Your task to perform on an android device: Look up the best rated 5.1 home theater speakers on Walmart. Image 0: 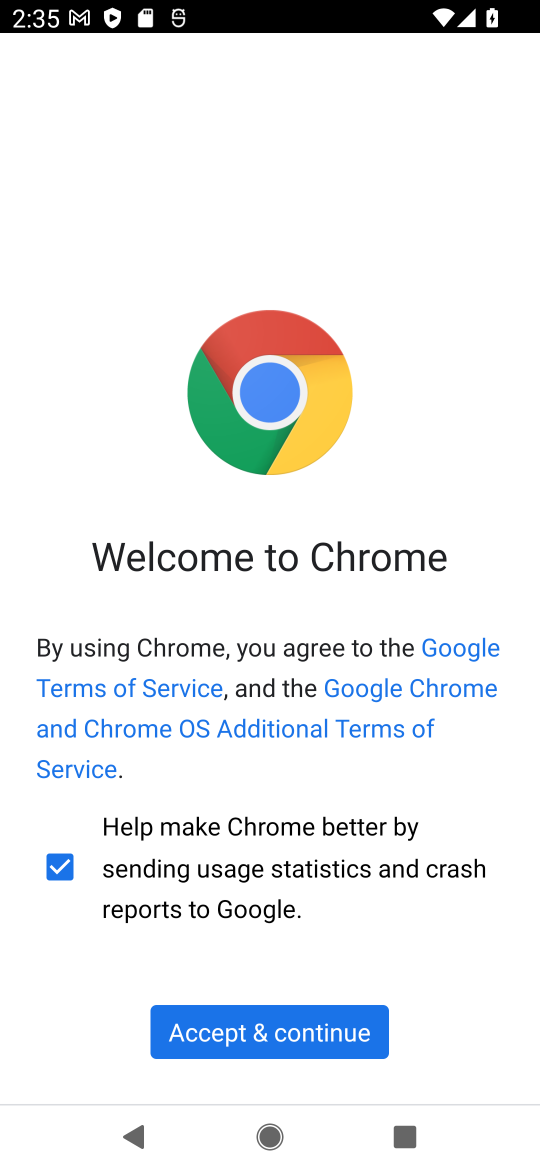
Step 0: press home button
Your task to perform on an android device: Look up the best rated 5.1 home theater speakers on Walmart. Image 1: 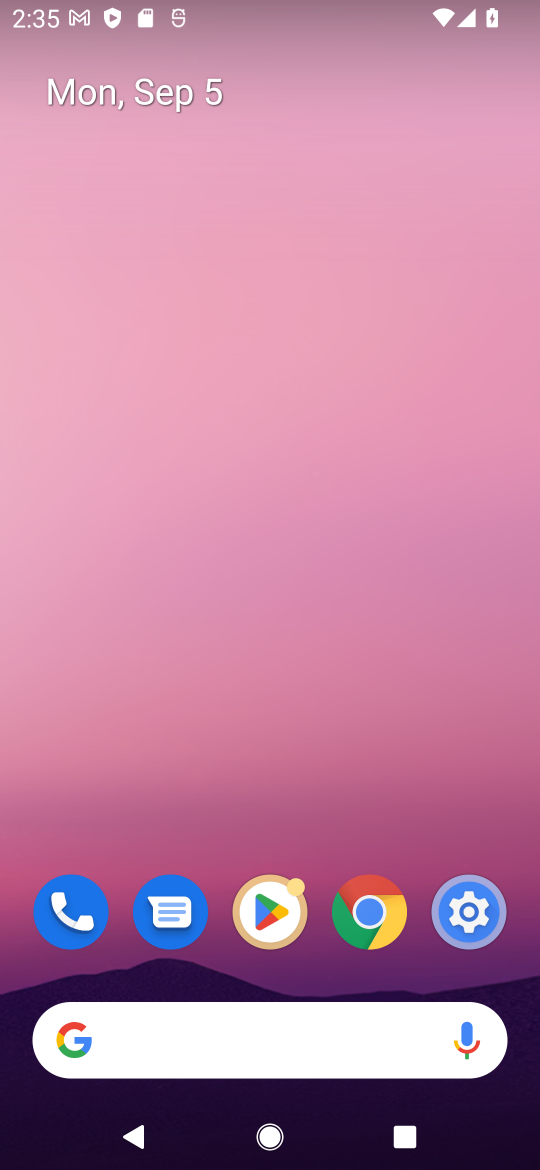
Step 1: click (367, 918)
Your task to perform on an android device: Look up the best rated 5.1 home theater speakers on Walmart. Image 2: 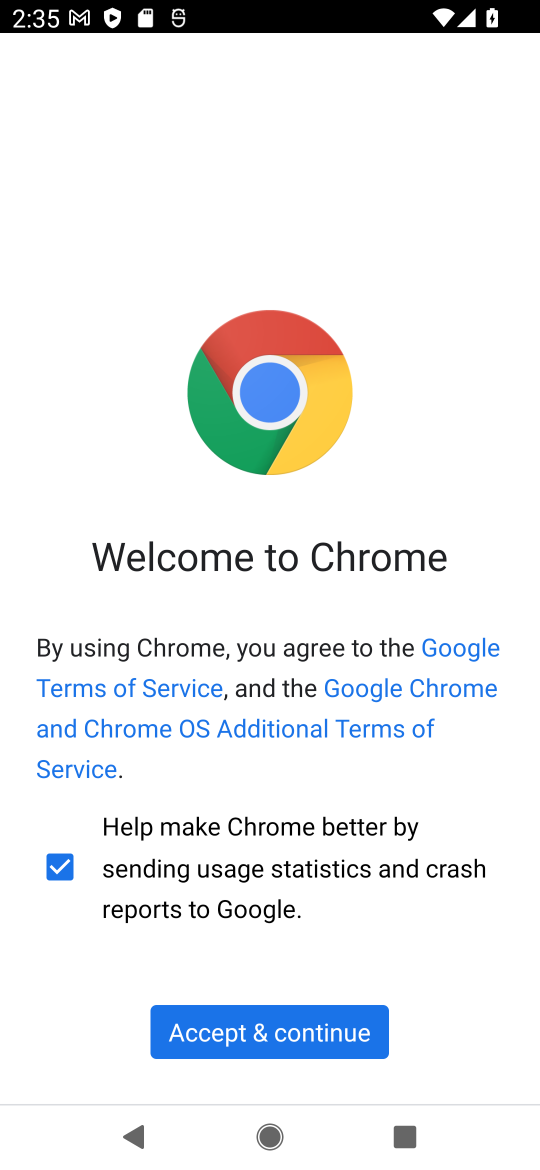
Step 2: click (380, 931)
Your task to perform on an android device: Look up the best rated 5.1 home theater speakers on Walmart. Image 3: 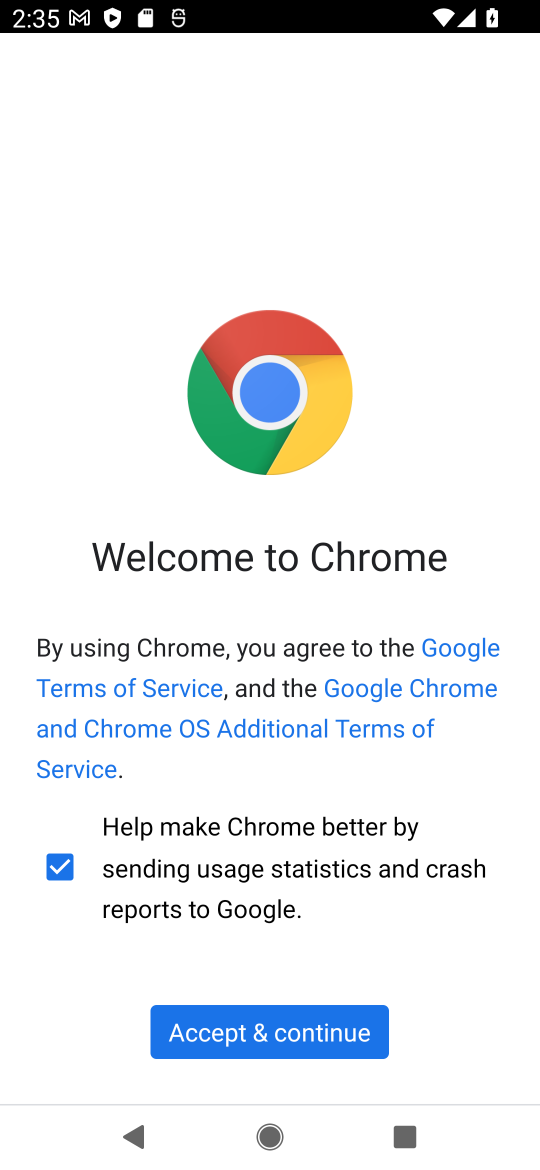
Step 3: click (314, 1027)
Your task to perform on an android device: Look up the best rated 5.1 home theater speakers on Walmart. Image 4: 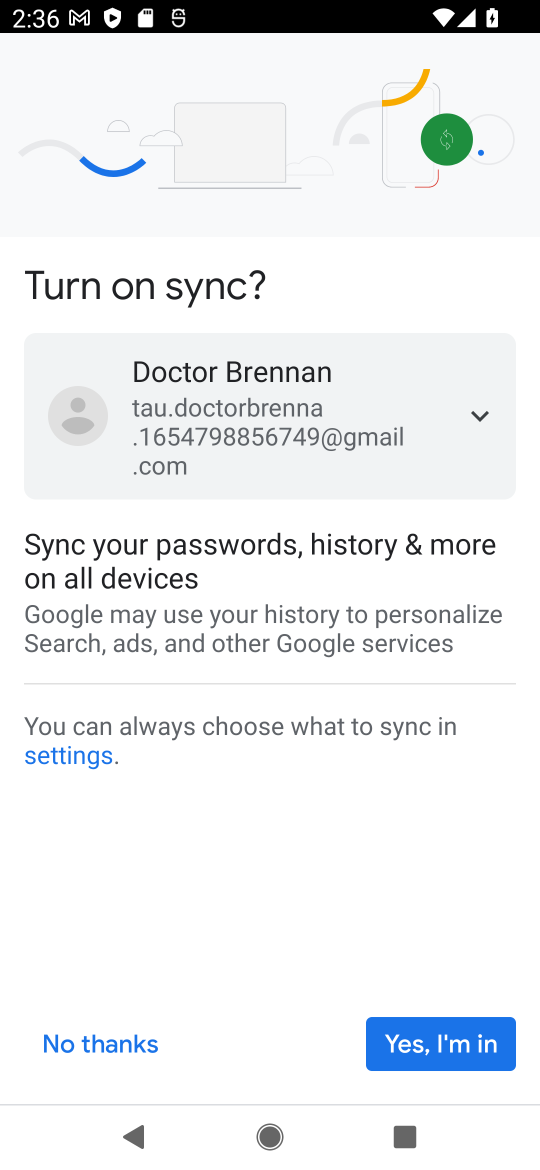
Step 4: click (482, 1052)
Your task to perform on an android device: Look up the best rated 5.1 home theater speakers on Walmart. Image 5: 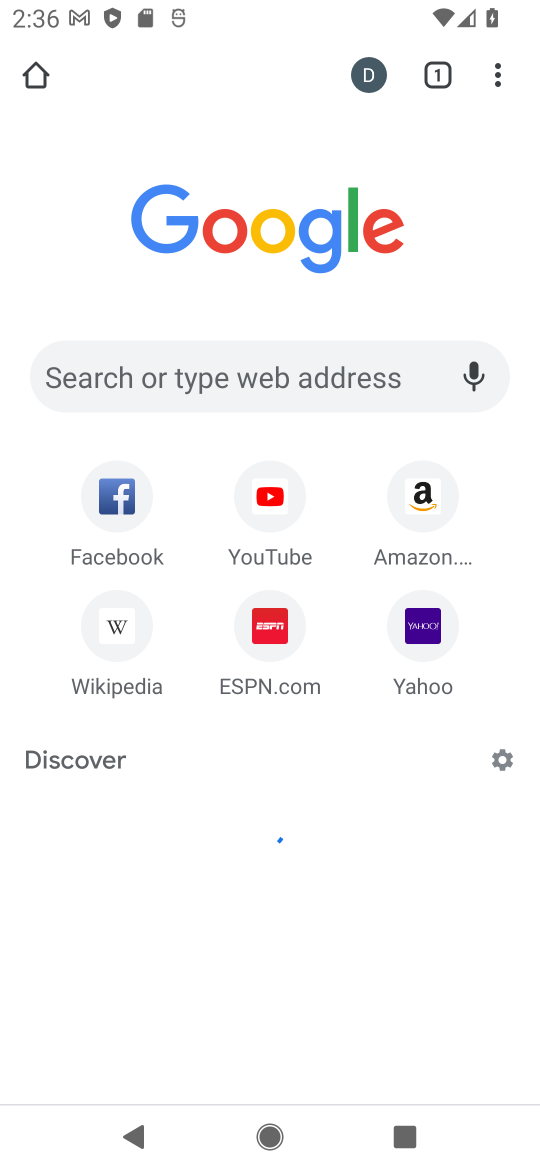
Step 5: click (229, 378)
Your task to perform on an android device: Look up the best rated 5.1 home theater speakers on Walmart. Image 6: 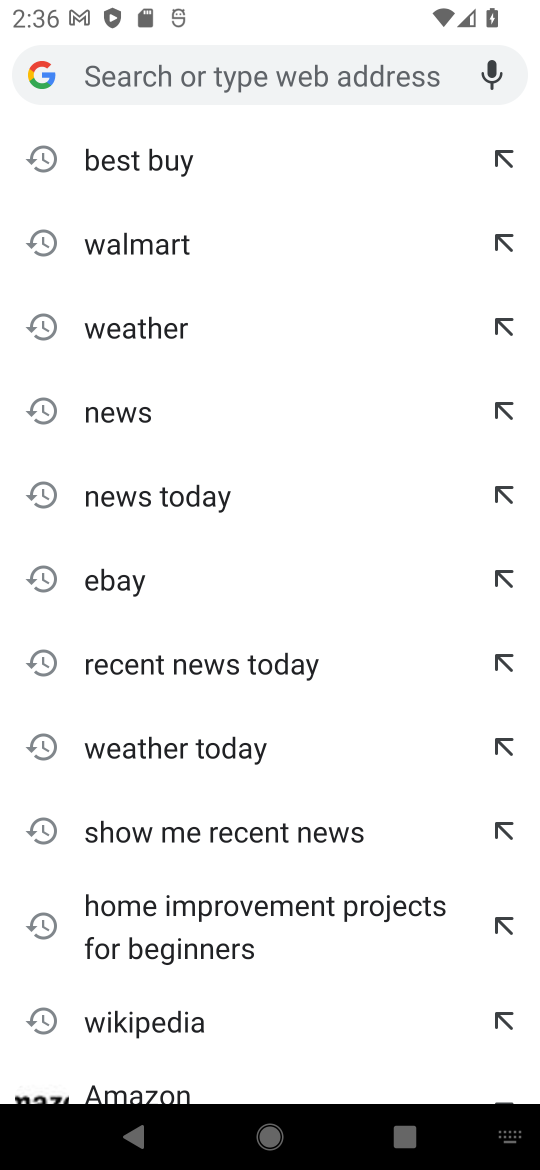
Step 6: type "walmart"
Your task to perform on an android device: Look up the best rated 5.1 home theater speakers on Walmart. Image 7: 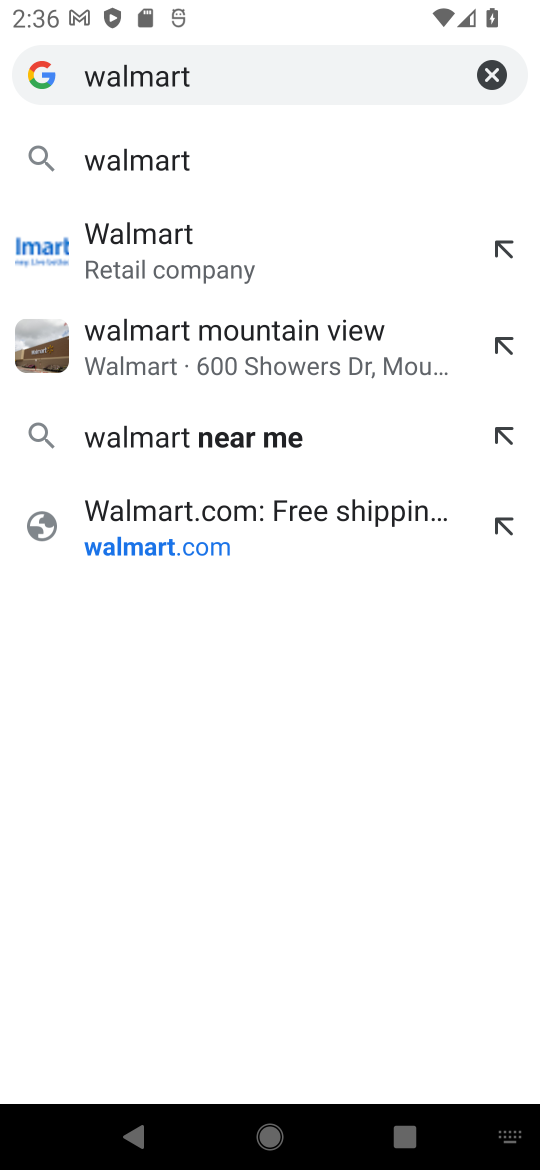
Step 7: press enter
Your task to perform on an android device: Look up the best rated 5.1 home theater speakers on Walmart. Image 8: 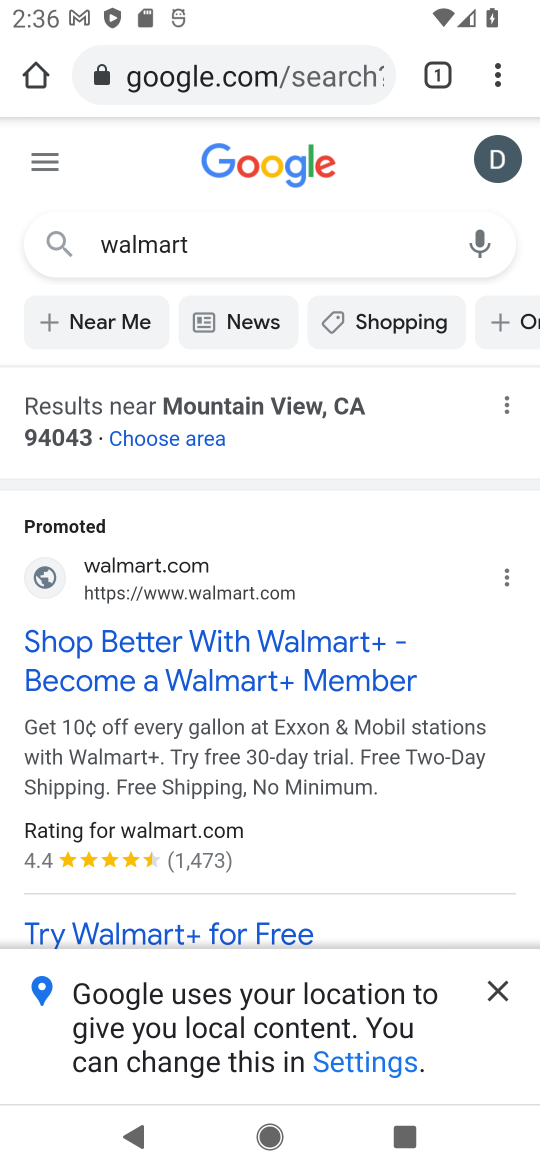
Step 8: click (204, 665)
Your task to perform on an android device: Look up the best rated 5.1 home theater speakers on Walmart. Image 9: 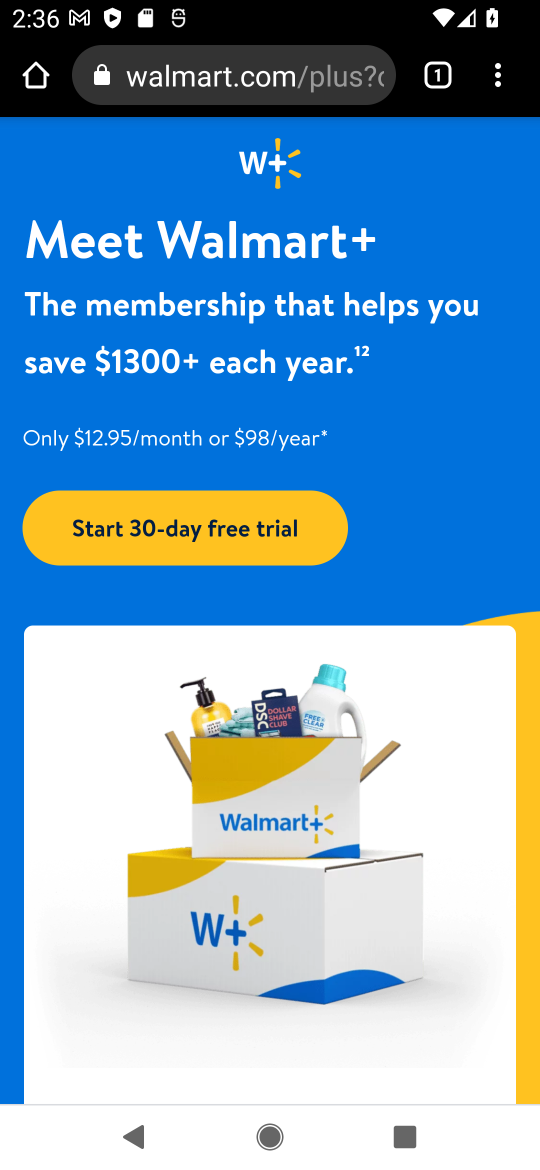
Step 9: drag from (287, 752) to (287, 354)
Your task to perform on an android device: Look up the best rated 5.1 home theater speakers on Walmart. Image 10: 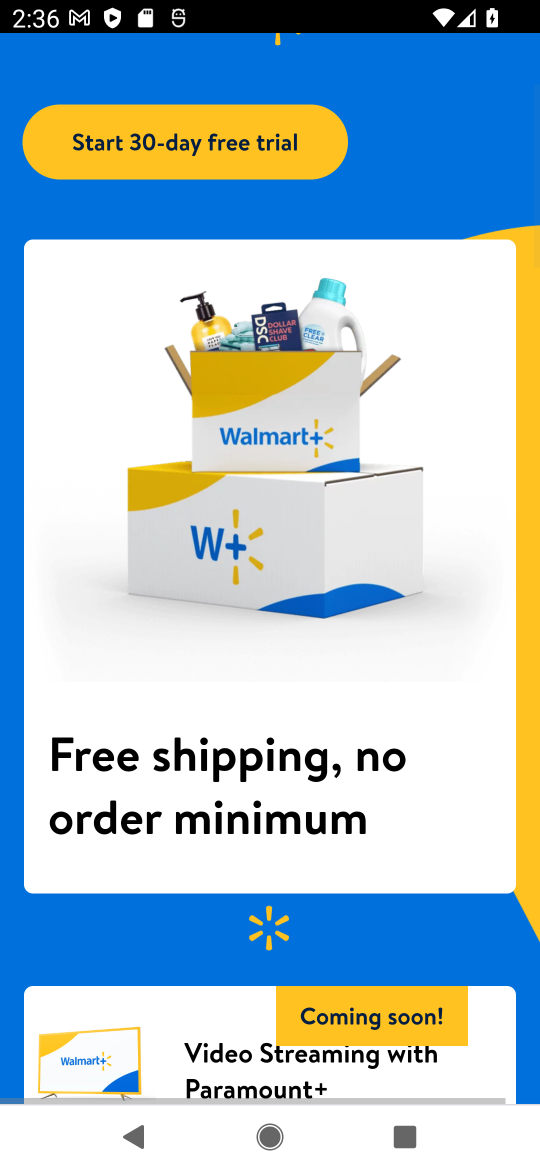
Step 10: click (338, 905)
Your task to perform on an android device: Look up the best rated 5.1 home theater speakers on Walmart. Image 11: 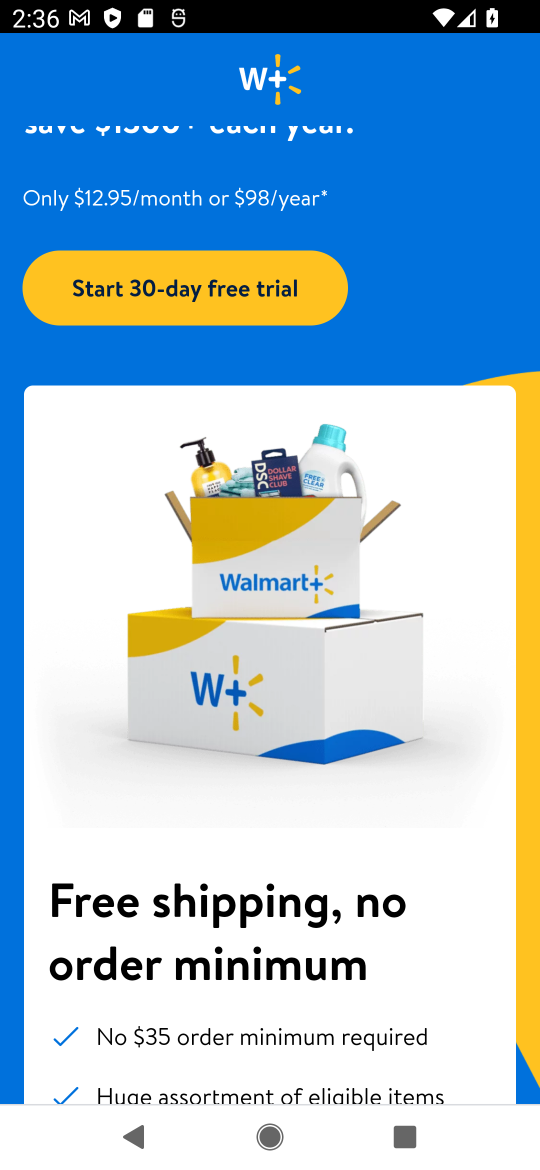
Step 11: click (268, 88)
Your task to perform on an android device: Look up the best rated 5.1 home theater speakers on Walmart. Image 12: 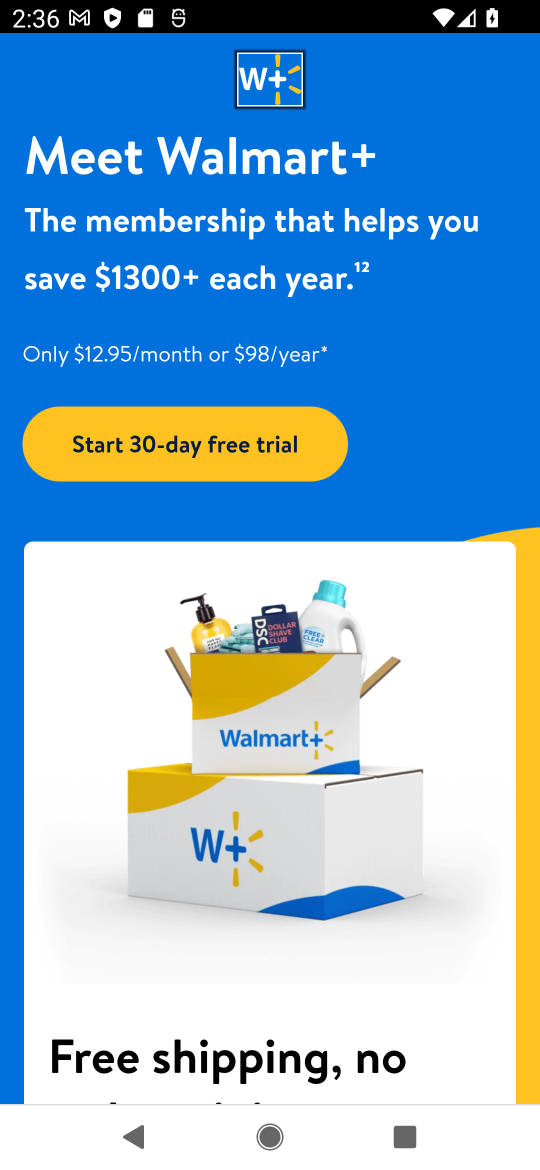
Step 12: click (270, 81)
Your task to perform on an android device: Look up the best rated 5.1 home theater speakers on Walmart. Image 13: 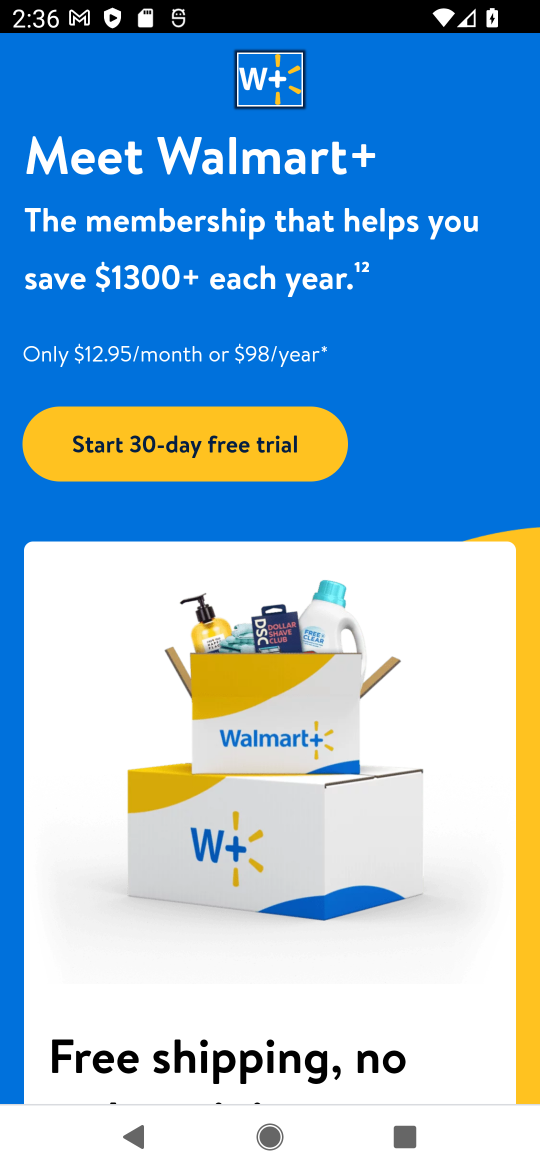
Step 13: press back button
Your task to perform on an android device: Look up the best rated 5.1 home theater speakers on Walmart. Image 14: 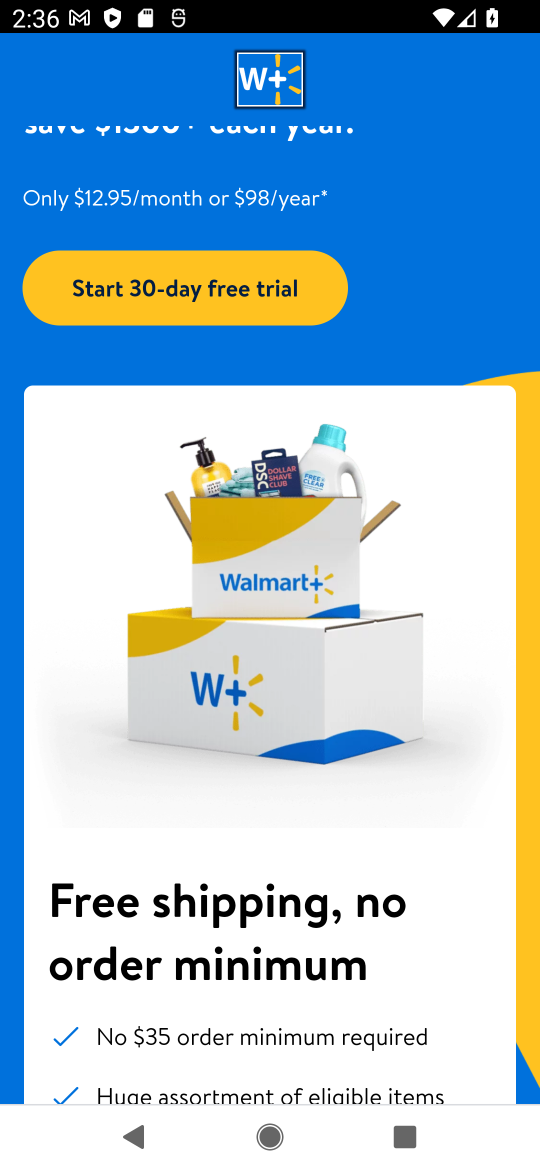
Step 14: press back button
Your task to perform on an android device: Look up the best rated 5.1 home theater speakers on Walmart. Image 15: 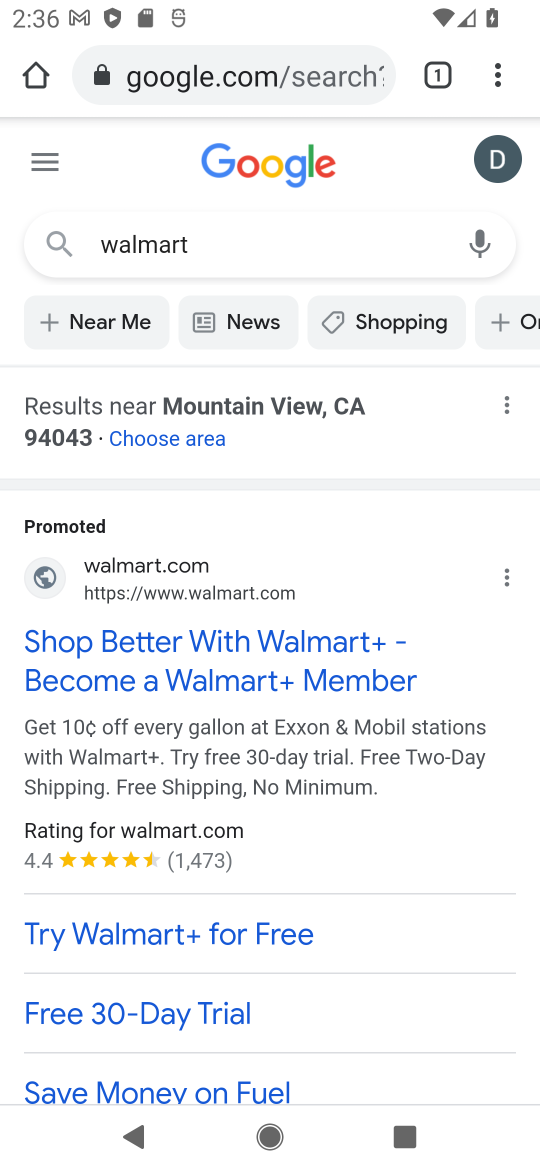
Step 15: drag from (295, 856) to (419, 440)
Your task to perform on an android device: Look up the best rated 5.1 home theater speakers on Walmart. Image 16: 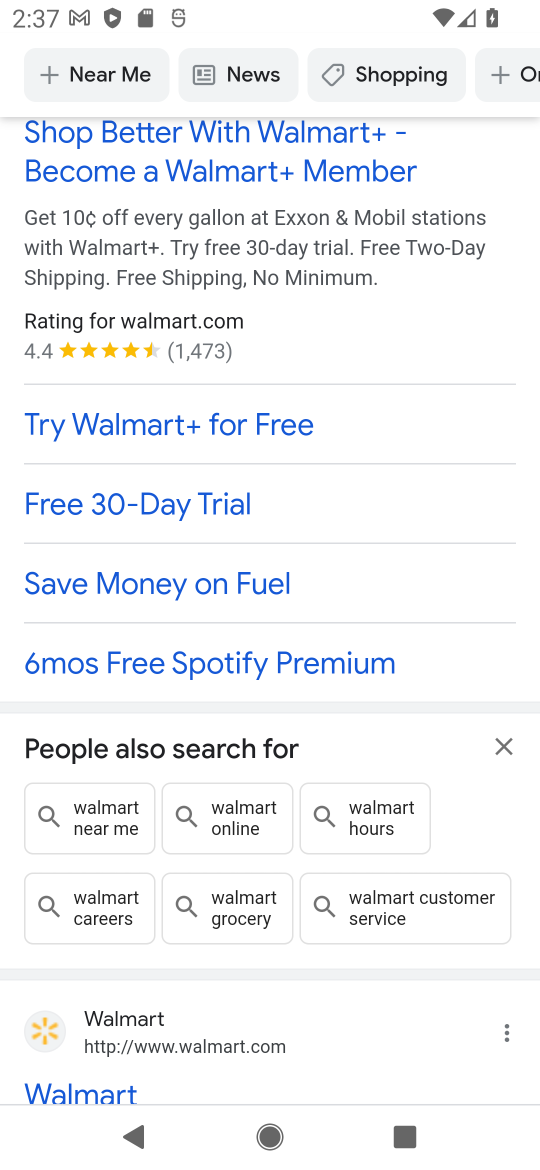
Step 16: drag from (363, 890) to (381, 594)
Your task to perform on an android device: Look up the best rated 5.1 home theater speakers on Walmart. Image 17: 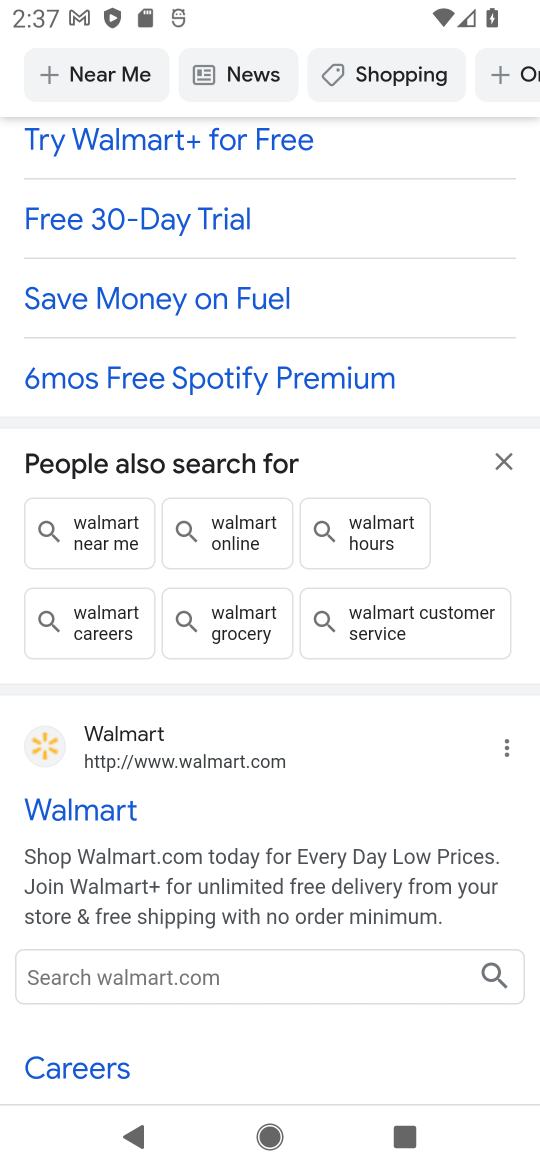
Step 17: click (96, 817)
Your task to perform on an android device: Look up the best rated 5.1 home theater speakers on Walmart. Image 18: 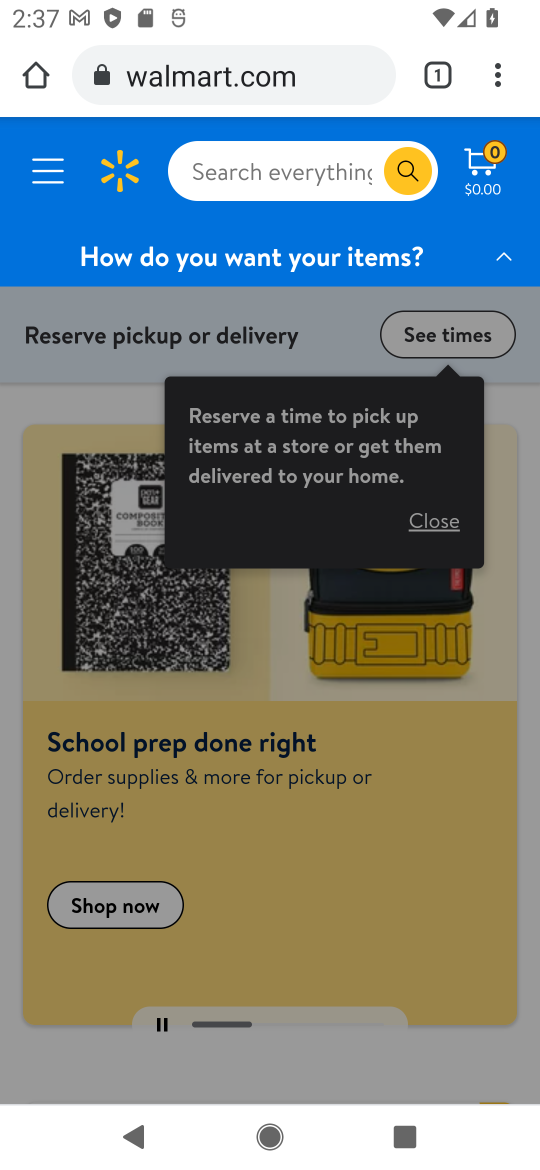
Step 18: click (274, 167)
Your task to perform on an android device: Look up the best rated 5.1 home theater speakers on Walmart. Image 19: 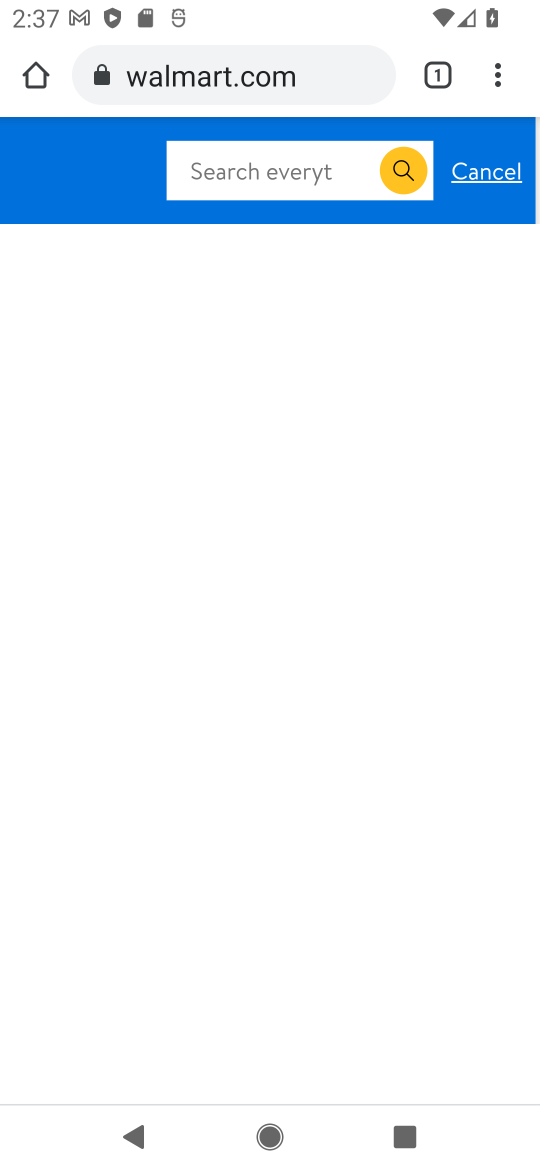
Step 19: click (237, 165)
Your task to perform on an android device: Look up the best rated 5.1 home theater speakers on Walmart. Image 20: 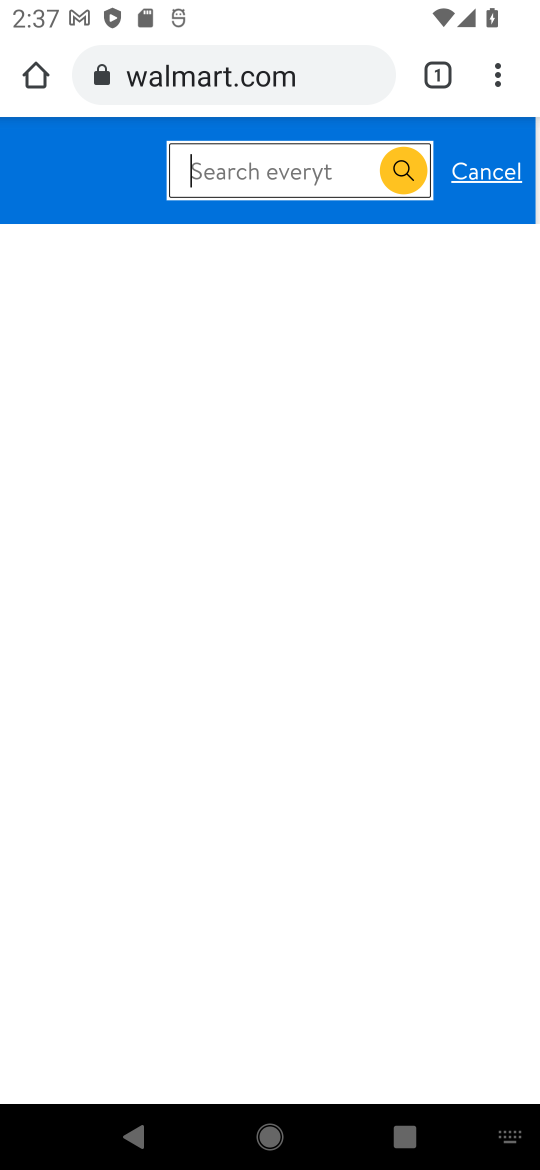
Step 20: type "5.1 home theater speakers"
Your task to perform on an android device: Look up the best rated 5.1 home theater speakers on Walmart. Image 21: 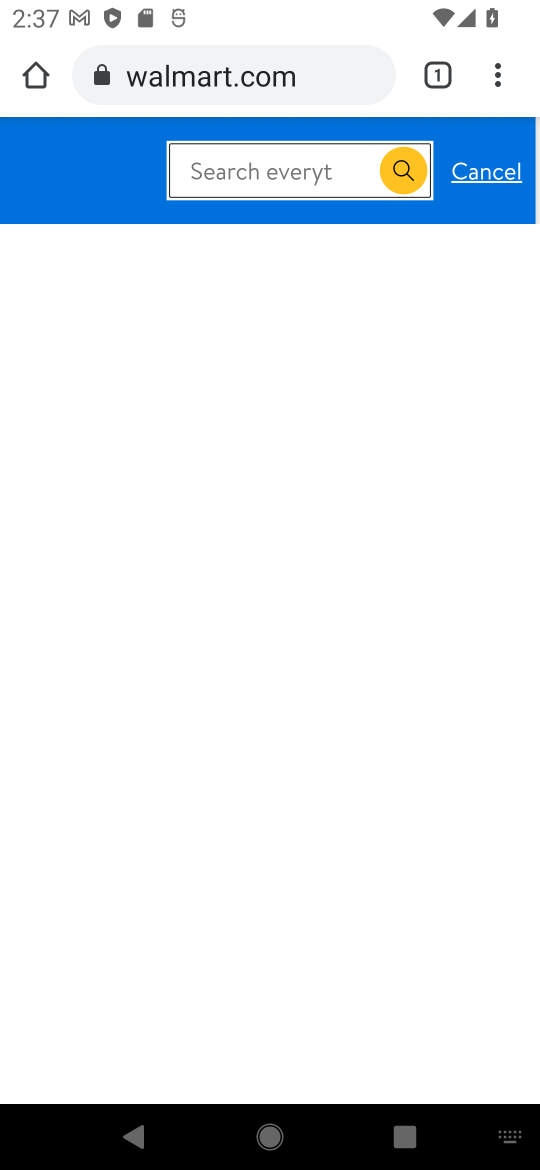
Step 21: type ""
Your task to perform on an android device: Look up the best rated 5.1 home theater speakers on Walmart. Image 22: 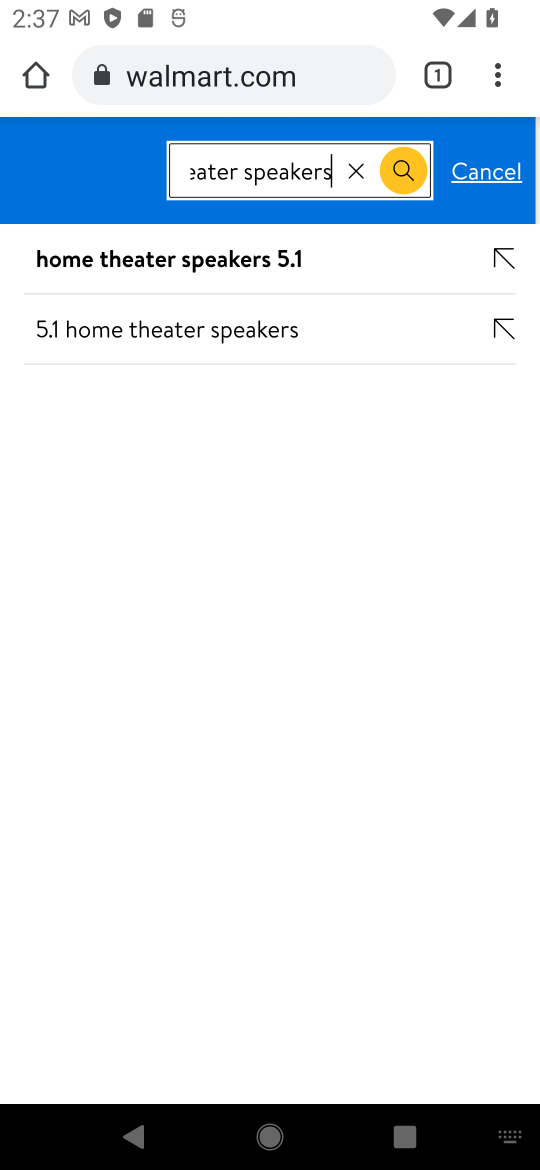
Step 22: click (325, 312)
Your task to perform on an android device: Look up the best rated 5.1 home theater speakers on Walmart. Image 23: 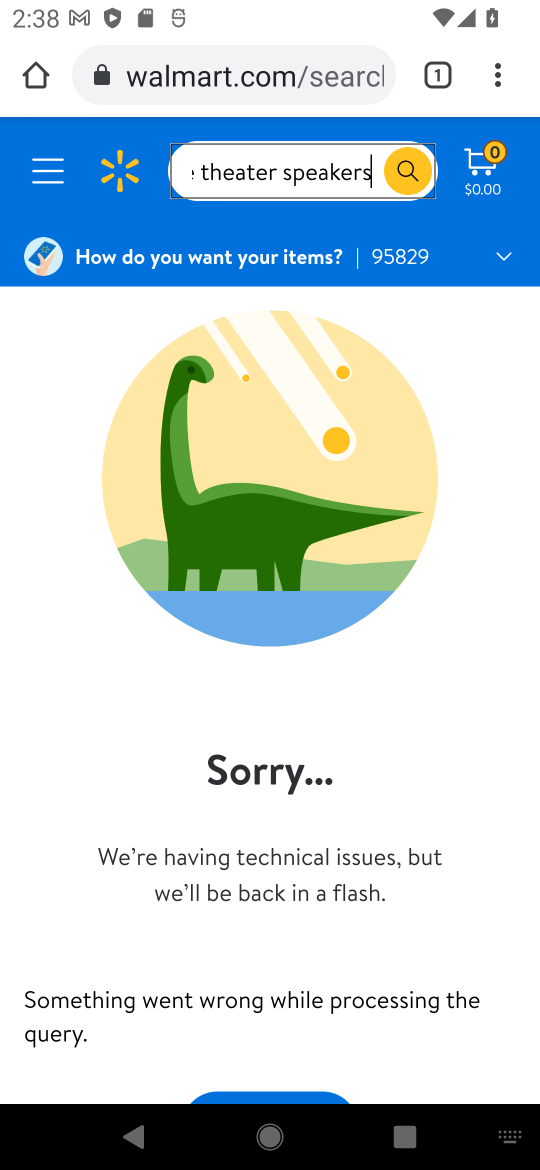
Step 23: click (419, 182)
Your task to perform on an android device: Look up the best rated 5.1 home theater speakers on Walmart. Image 24: 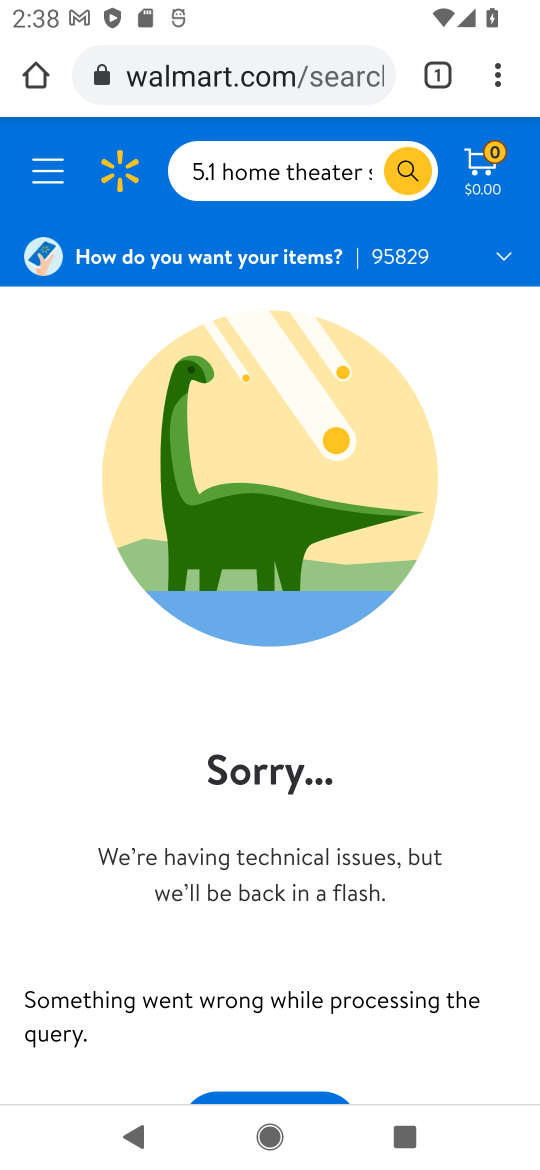
Step 24: click (331, 175)
Your task to perform on an android device: Look up the best rated 5.1 home theater speakers on Walmart. Image 25: 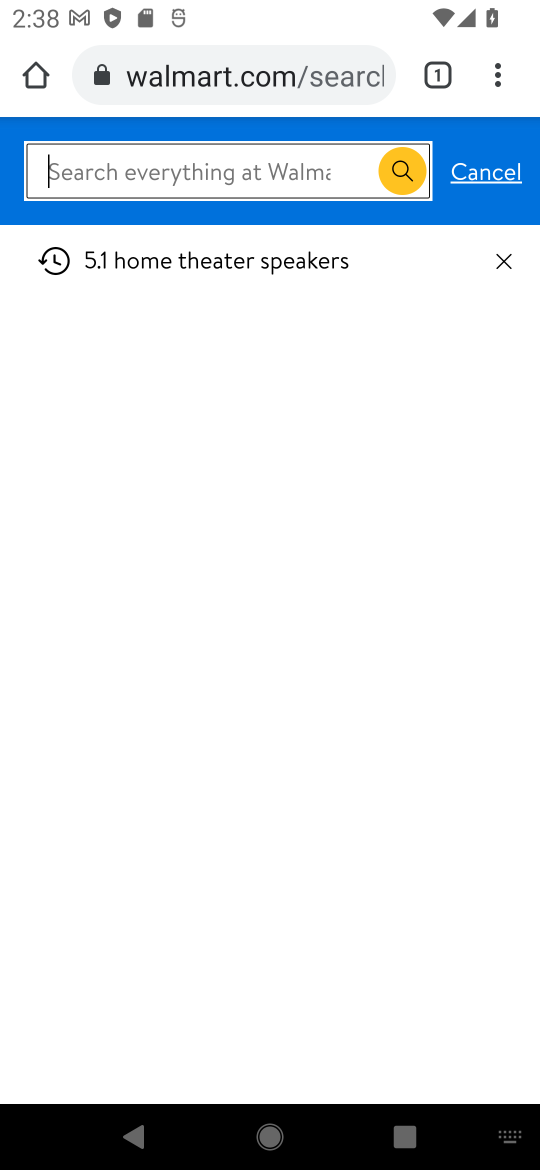
Step 25: click (293, 264)
Your task to perform on an android device: Look up the best rated 5.1 home theater speakers on Walmart. Image 26: 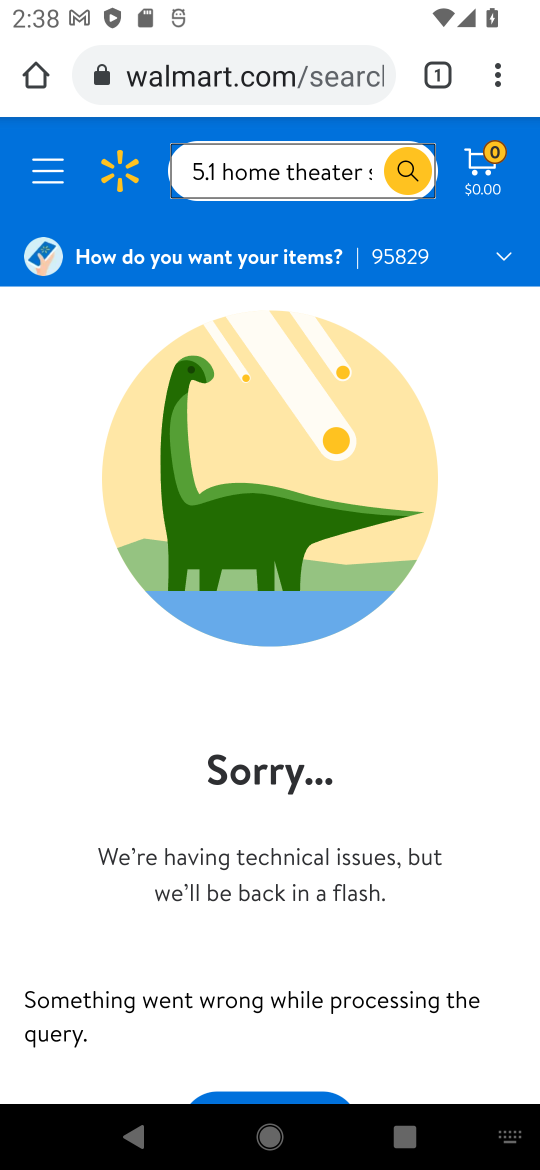
Step 26: click (297, 170)
Your task to perform on an android device: Look up the best rated 5.1 home theater speakers on Walmart. Image 27: 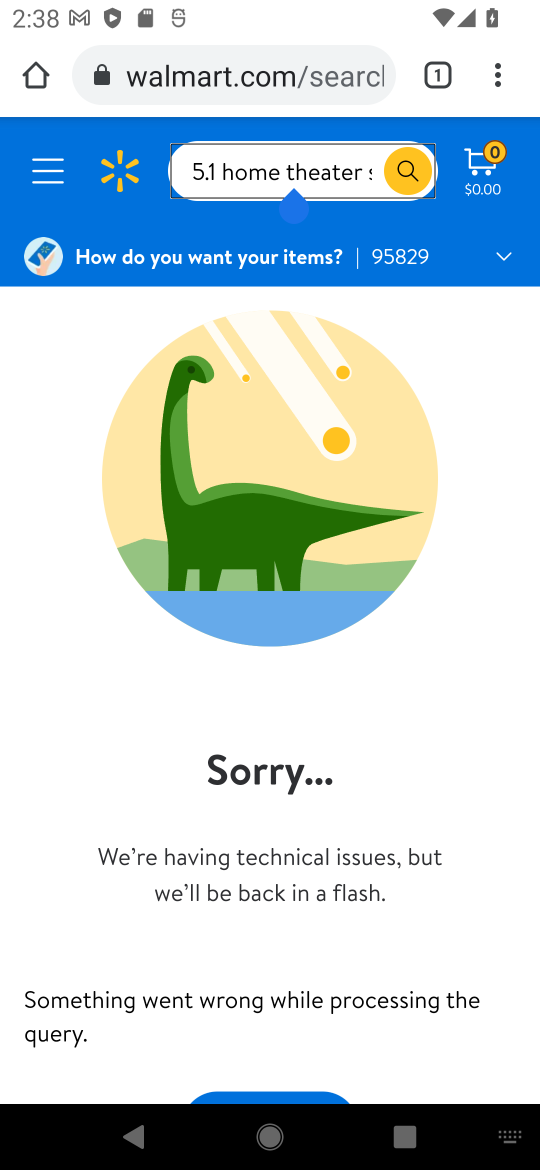
Step 27: click (254, 162)
Your task to perform on an android device: Look up the best rated 5.1 home theater speakers on Walmart. Image 28: 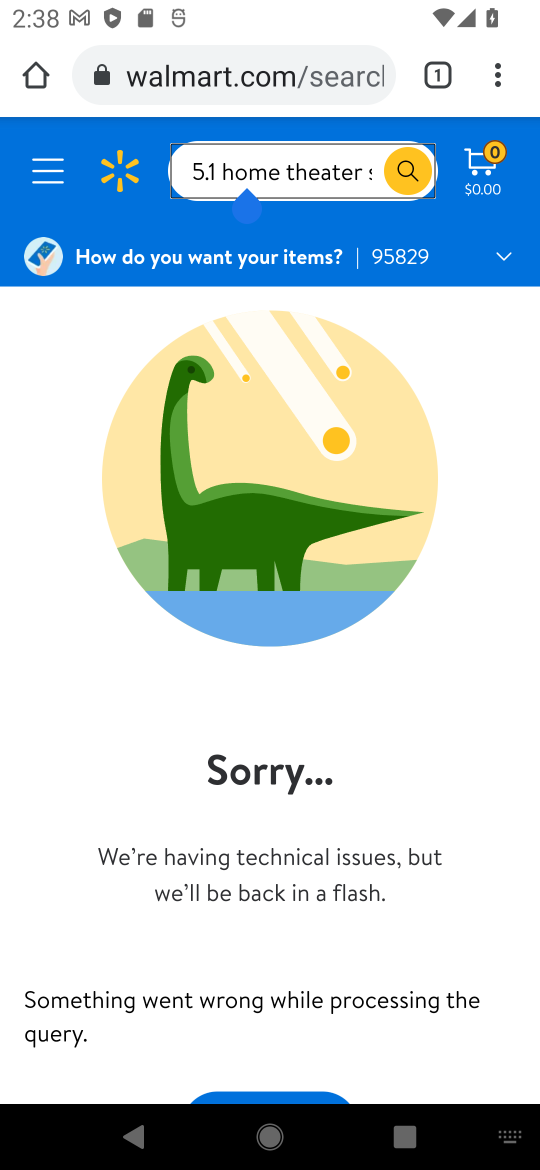
Step 28: click (324, 168)
Your task to perform on an android device: Look up the best rated 5.1 home theater speakers on Walmart. Image 29: 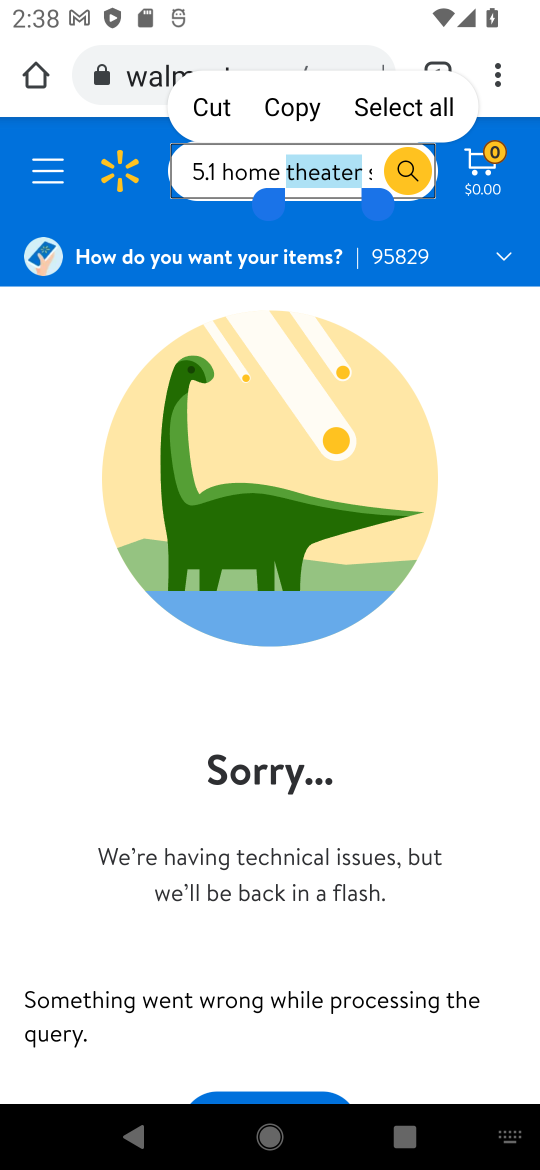
Step 29: click (367, 101)
Your task to perform on an android device: Look up the best rated 5.1 home theater speakers on Walmart. Image 30: 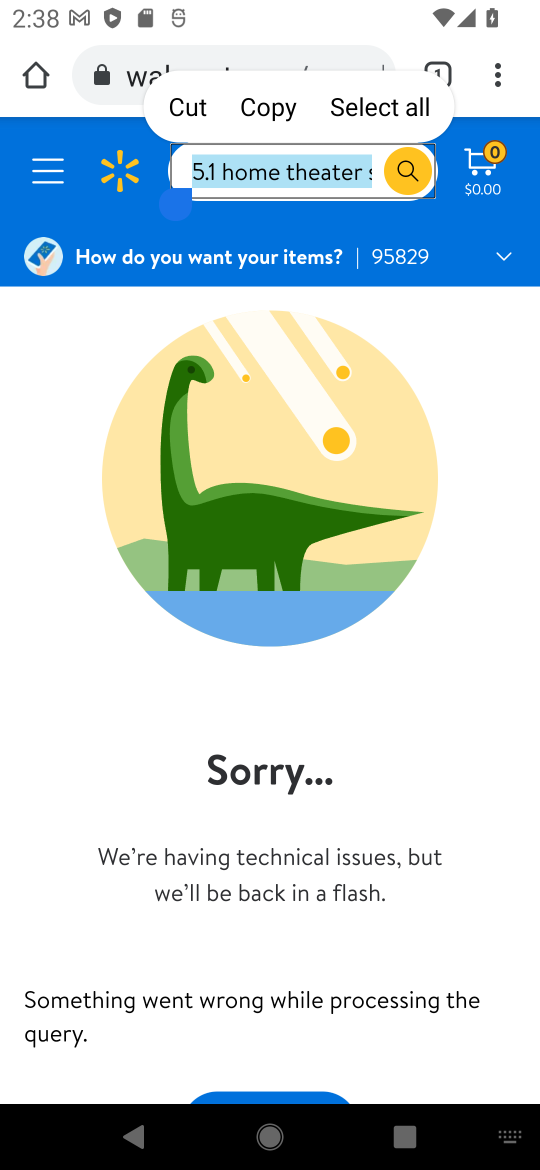
Step 30: type "5.1 home theater speakers"
Your task to perform on an android device: Look up the best rated 5.1 home theater speakers on Walmart. Image 31: 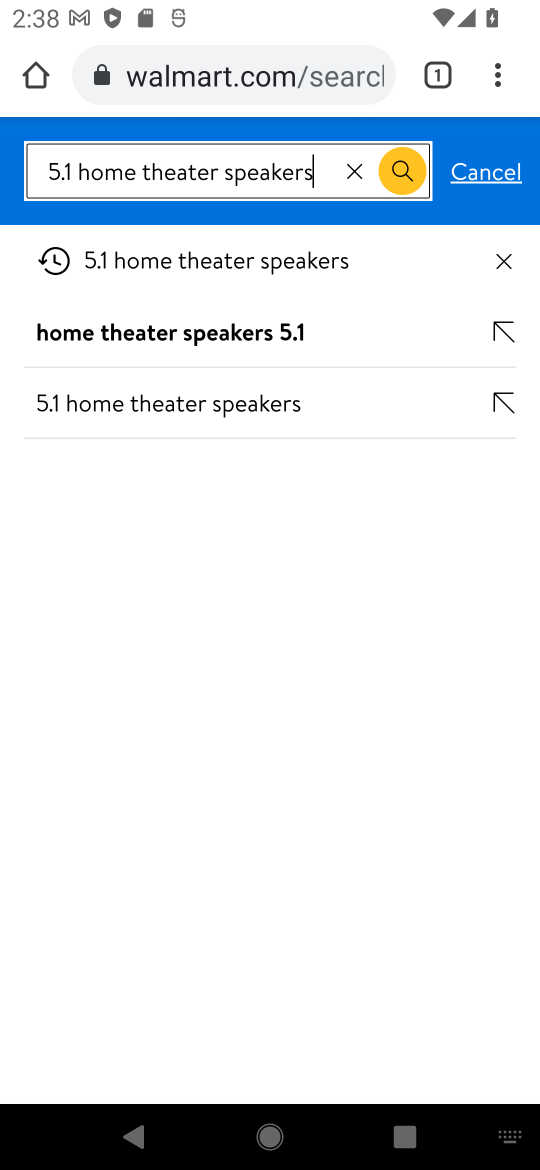
Step 31: click (305, 347)
Your task to perform on an android device: Look up the best rated 5.1 home theater speakers on Walmart. Image 32: 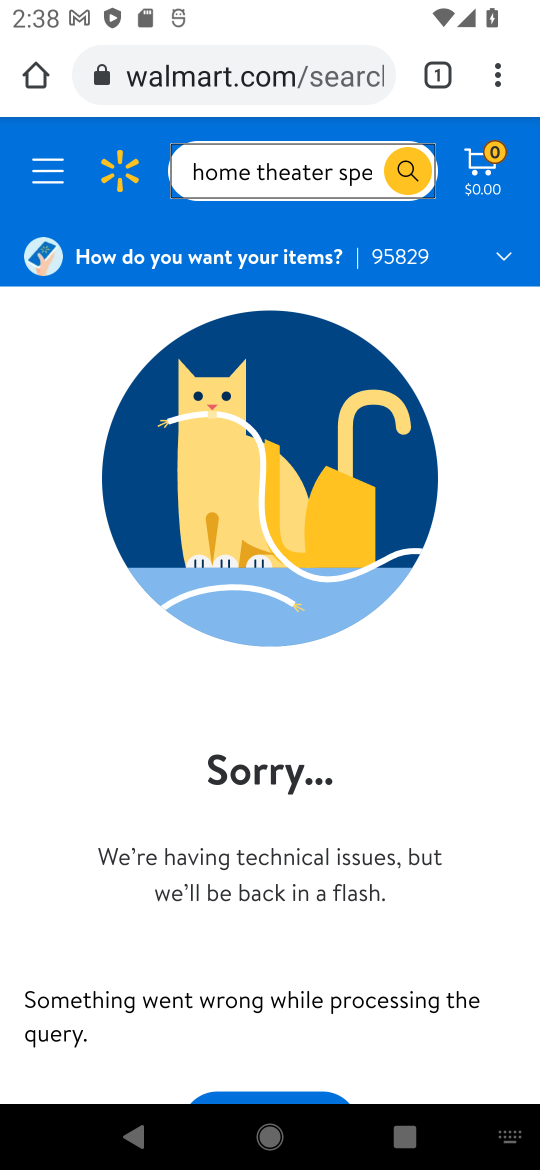
Step 32: task complete